Your task to perform on an android device: Open sound settings Image 0: 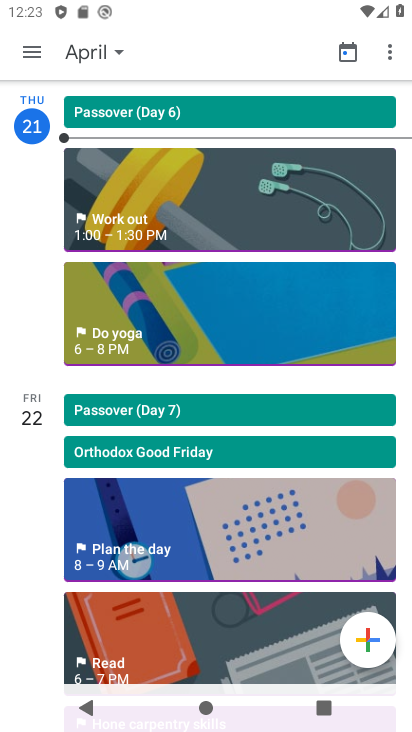
Step 0: press home button
Your task to perform on an android device: Open sound settings Image 1: 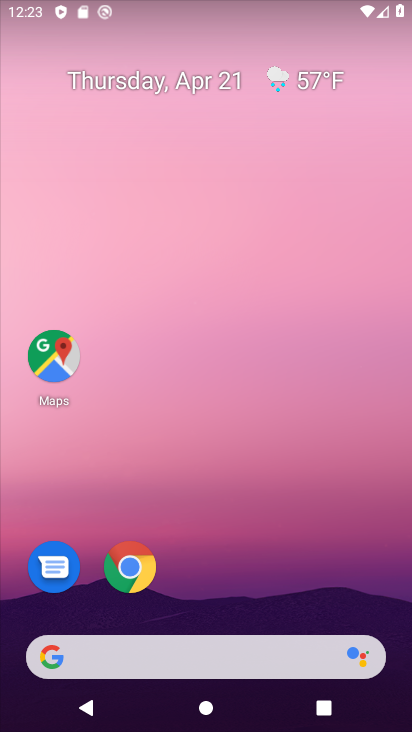
Step 1: drag from (315, 580) to (362, 169)
Your task to perform on an android device: Open sound settings Image 2: 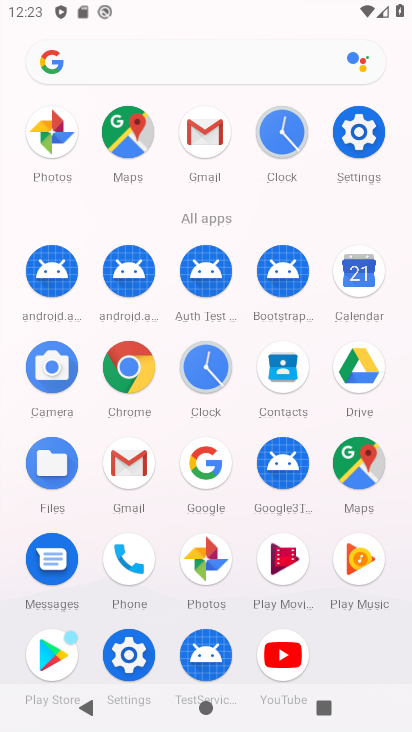
Step 2: click (367, 130)
Your task to perform on an android device: Open sound settings Image 3: 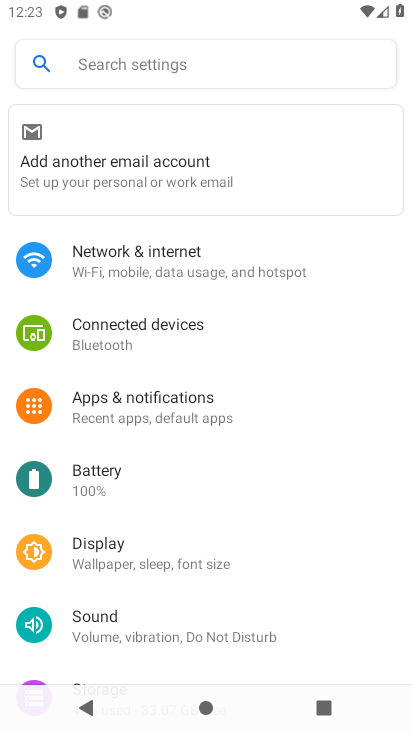
Step 3: drag from (325, 614) to (356, 306)
Your task to perform on an android device: Open sound settings Image 4: 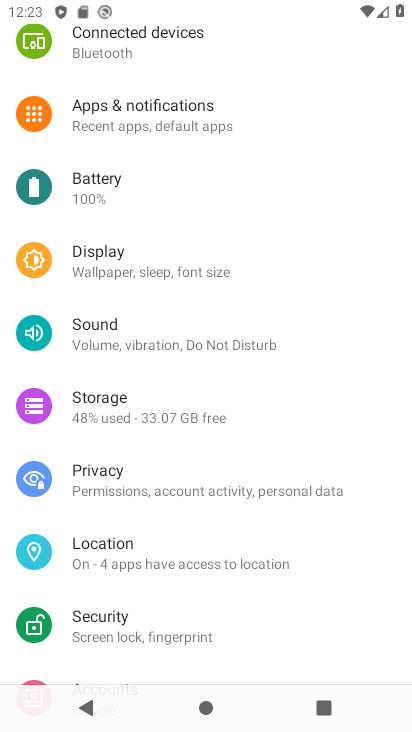
Step 4: drag from (350, 579) to (359, 280)
Your task to perform on an android device: Open sound settings Image 5: 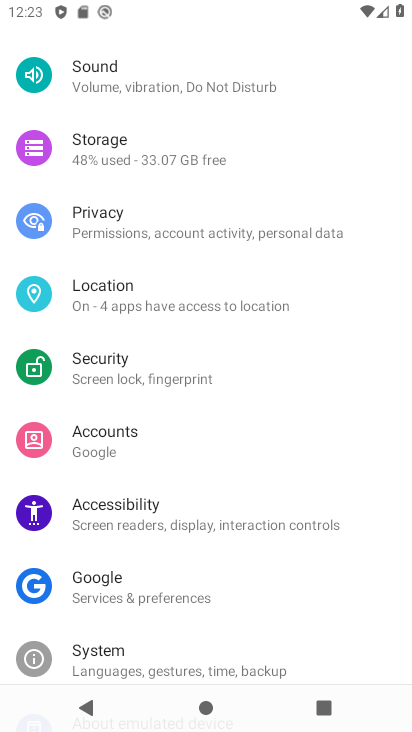
Step 5: drag from (336, 613) to (365, 312)
Your task to perform on an android device: Open sound settings Image 6: 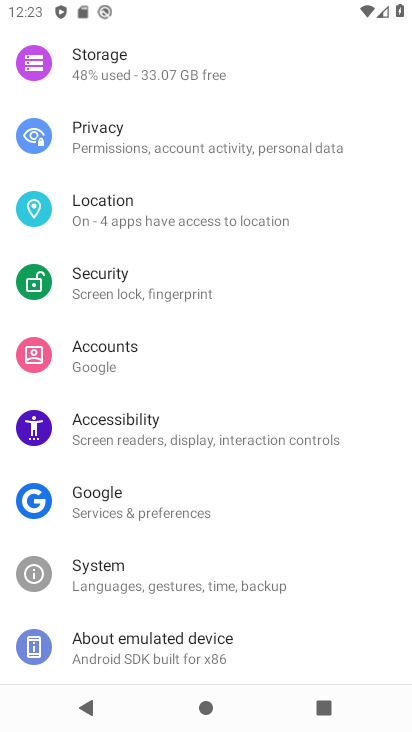
Step 6: drag from (375, 276) to (380, 450)
Your task to perform on an android device: Open sound settings Image 7: 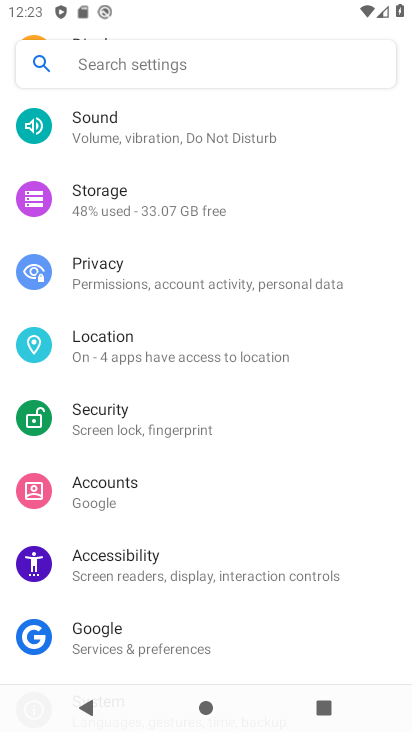
Step 7: drag from (376, 256) to (378, 434)
Your task to perform on an android device: Open sound settings Image 8: 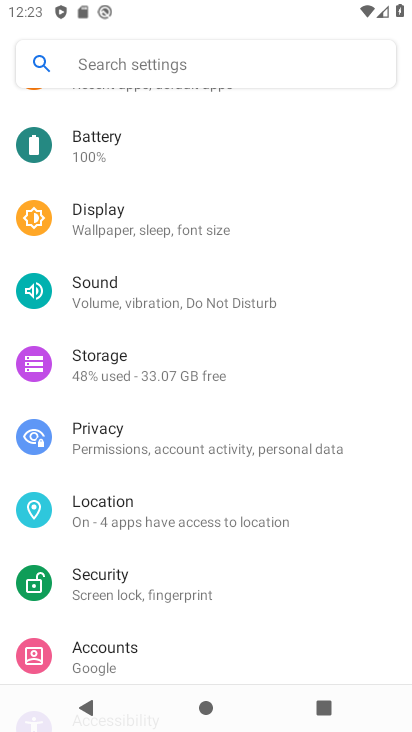
Step 8: drag from (373, 235) to (382, 428)
Your task to perform on an android device: Open sound settings Image 9: 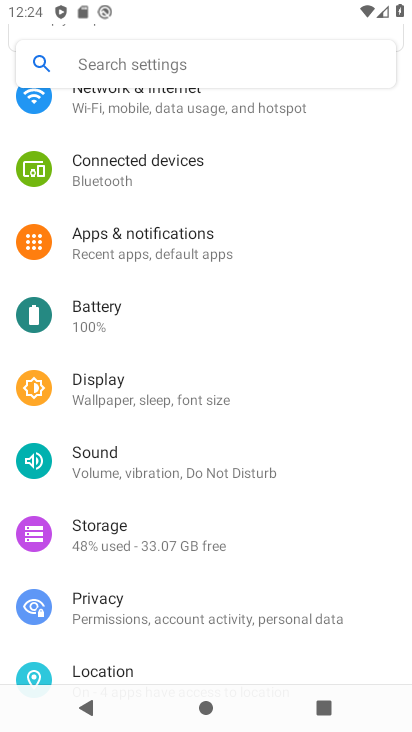
Step 9: click (233, 460)
Your task to perform on an android device: Open sound settings Image 10: 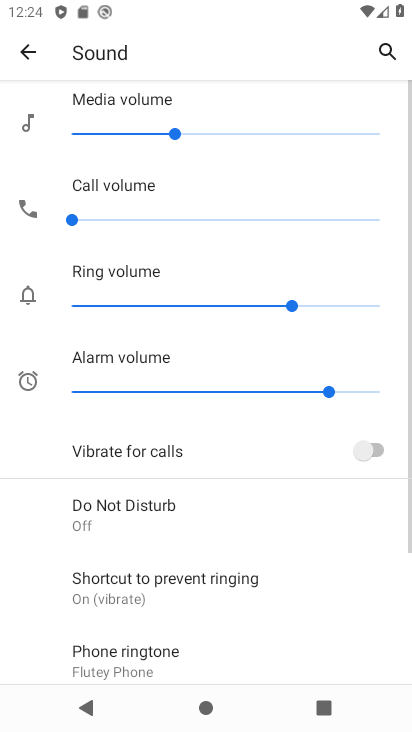
Step 10: task complete